Your task to perform on an android device: Clear the cart on newegg. Add energizer triple a to the cart on newegg, then select checkout. Image 0: 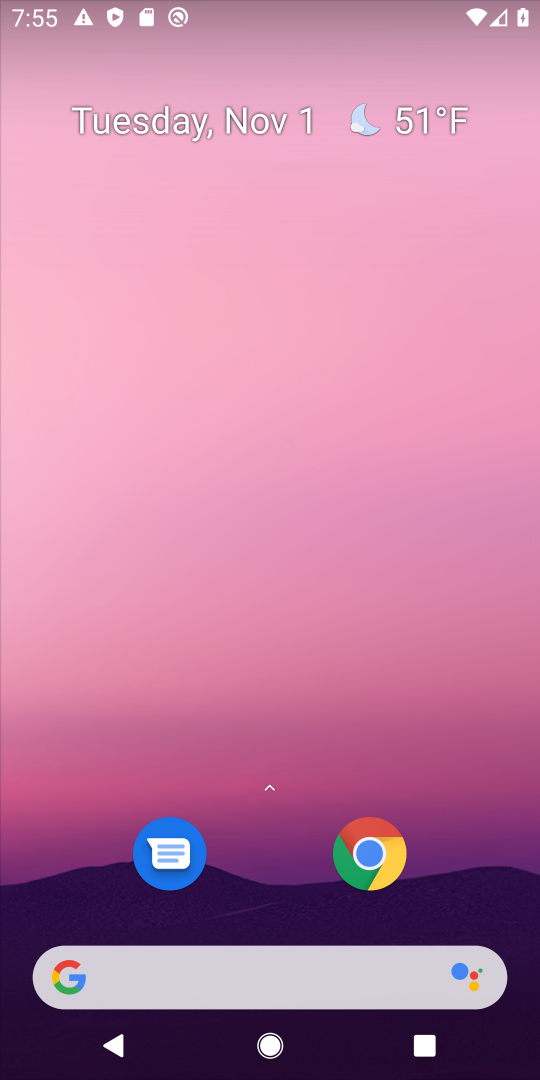
Step 0: click (298, 964)
Your task to perform on an android device: Clear the cart on newegg. Add energizer triple a to the cart on newegg, then select checkout. Image 1: 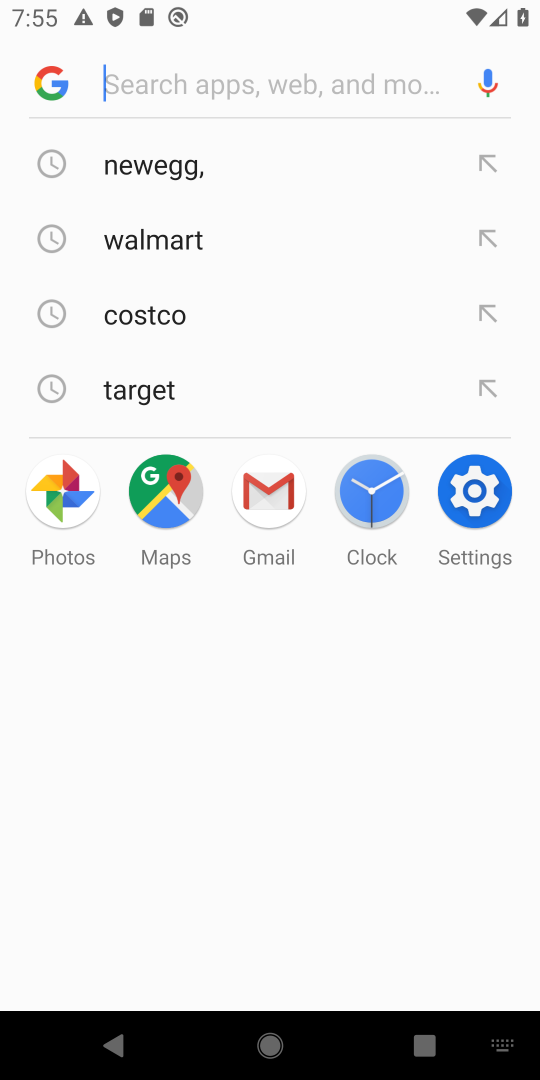
Step 1: click (203, 133)
Your task to perform on an android device: Clear the cart on newegg. Add energizer triple a to the cart on newegg, then select checkout. Image 2: 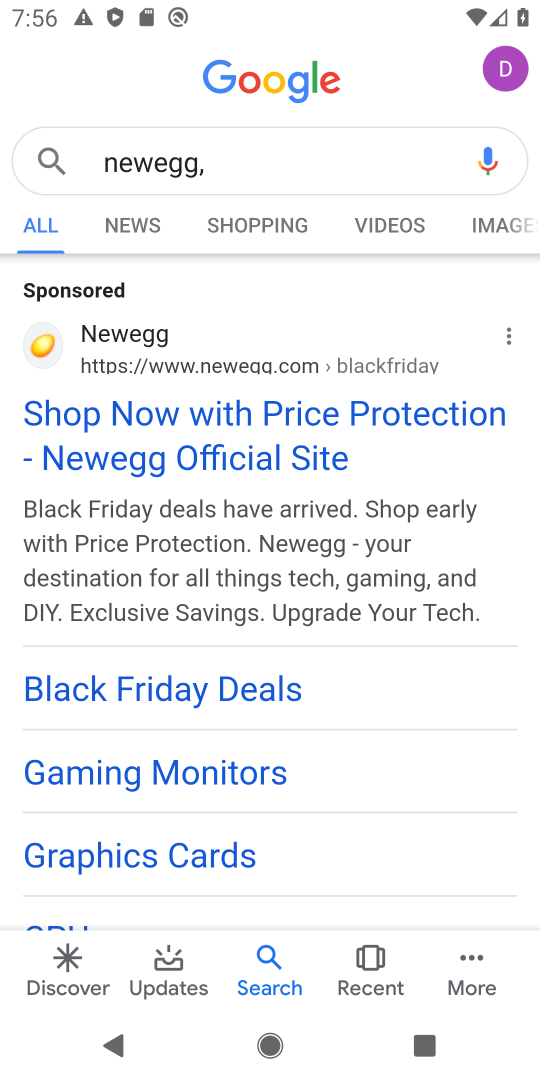
Step 2: click (245, 697)
Your task to perform on an android device: Clear the cart on newegg. Add energizer triple a to the cart on newegg, then select checkout. Image 3: 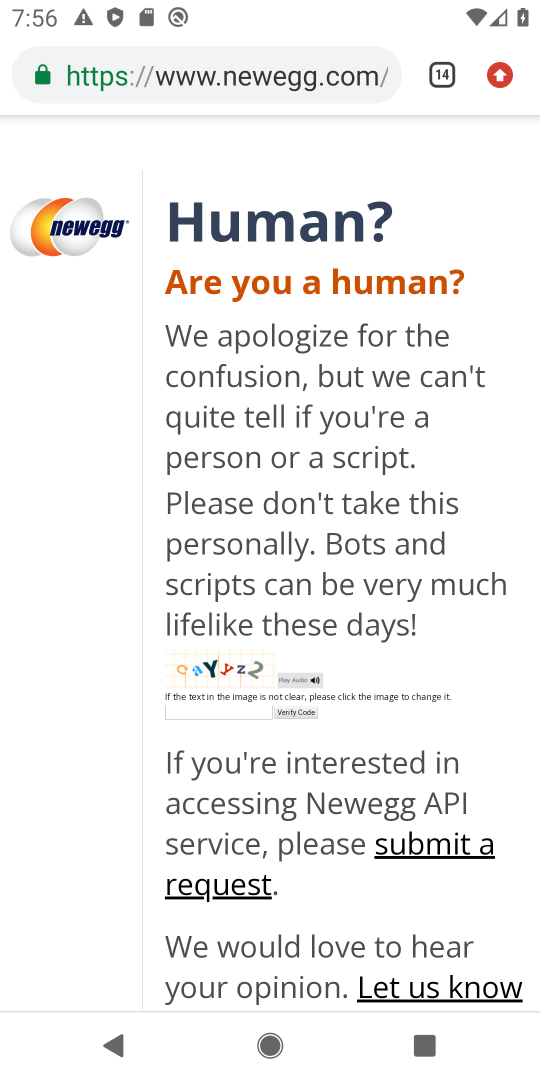
Step 3: click (215, 723)
Your task to perform on an android device: Clear the cart on newegg. Add energizer triple a to the cart on newegg, then select checkout. Image 4: 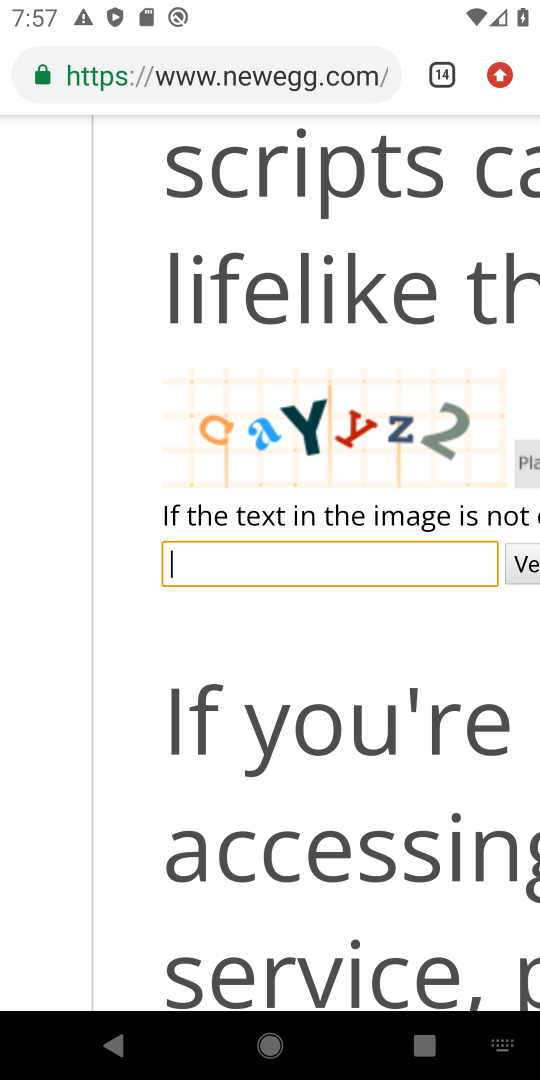
Step 4: type "caYYz2"
Your task to perform on an android device: Clear the cart on newegg. Add energizer triple a to the cart on newegg, then select checkout. Image 5: 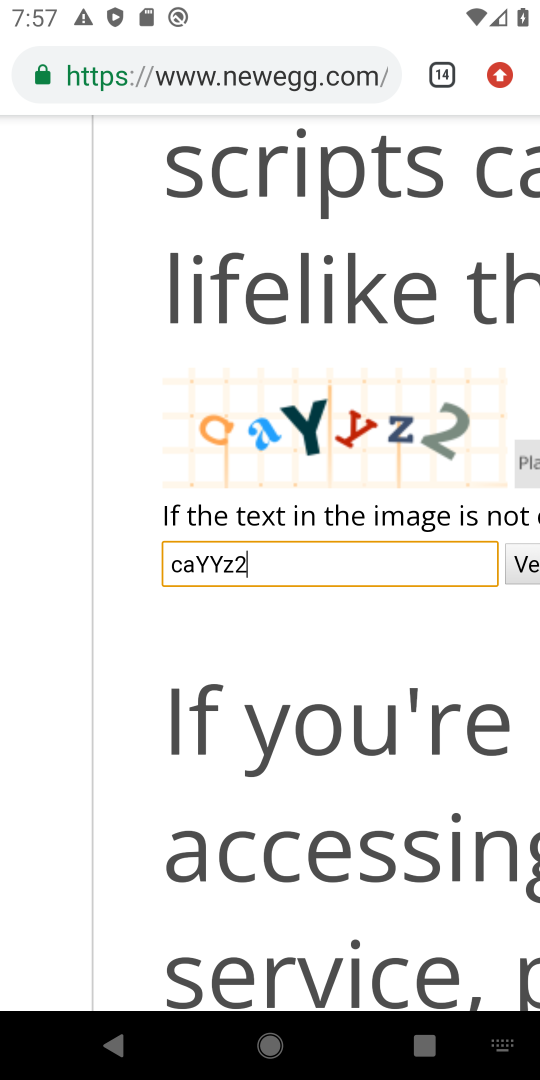
Step 5: click (527, 573)
Your task to perform on an android device: Clear the cart on newegg. Add energizer triple a to the cart on newegg, then select checkout. Image 6: 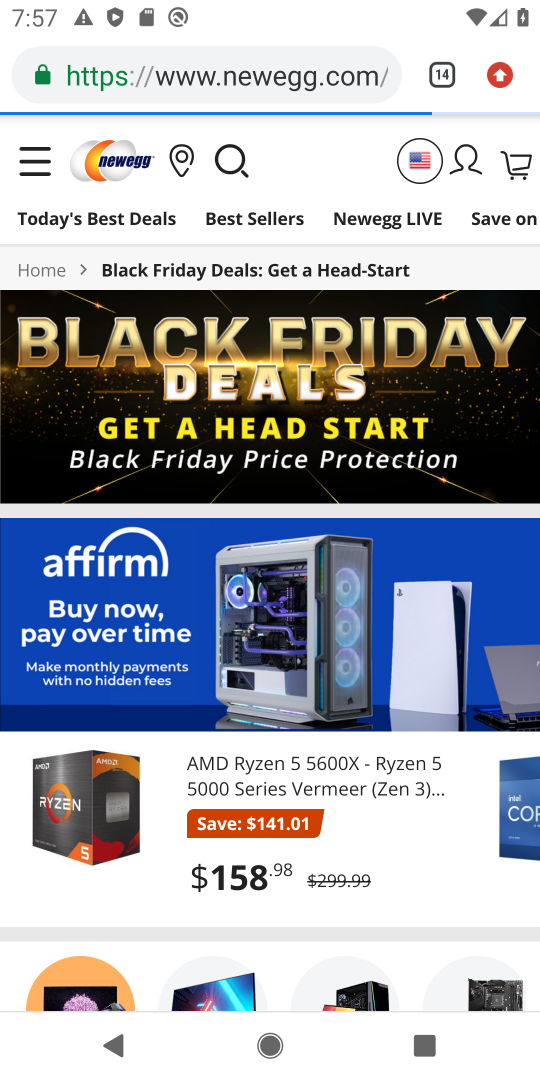
Step 6: click (224, 172)
Your task to perform on an android device: Clear the cart on newegg. Add energizer triple a to the cart on newegg, then select checkout. Image 7: 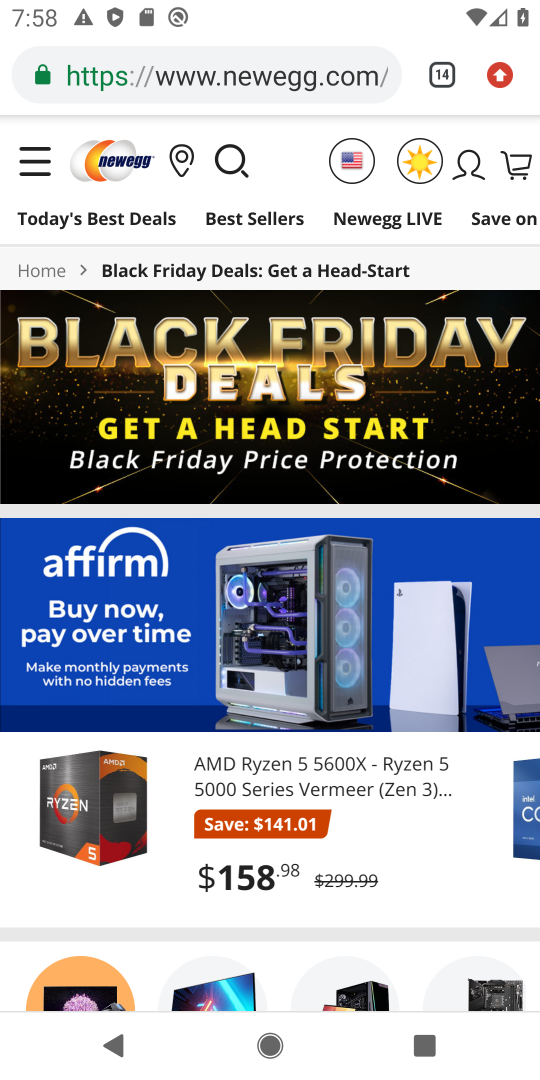
Step 7: click (229, 129)
Your task to perform on an android device: Clear the cart on newegg. Add energizer triple a to the cart on newegg, then select checkout. Image 8: 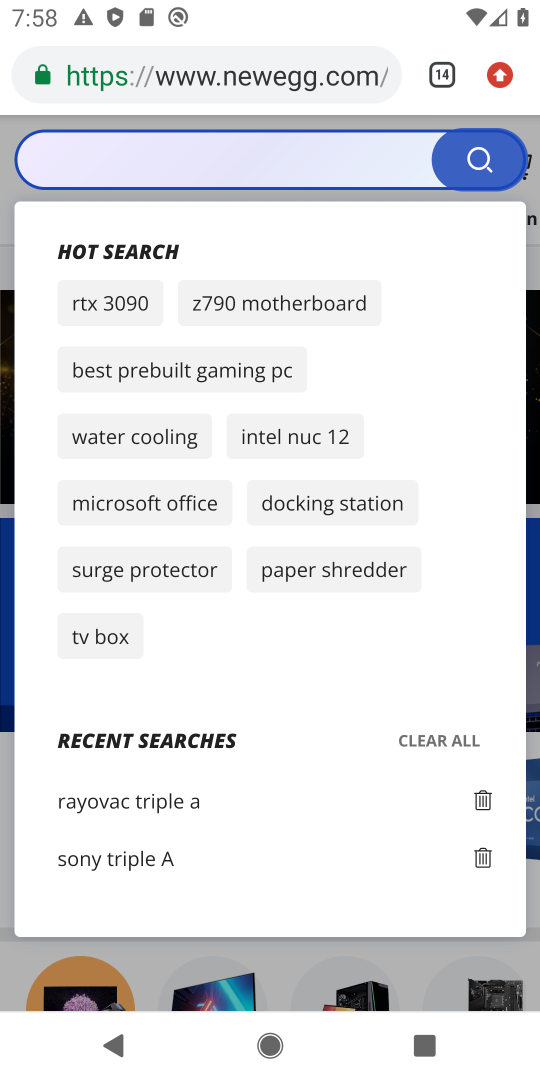
Step 8: type "triple a"
Your task to perform on an android device: Clear the cart on newegg. Add energizer triple a to the cart on newegg, then select checkout. Image 9: 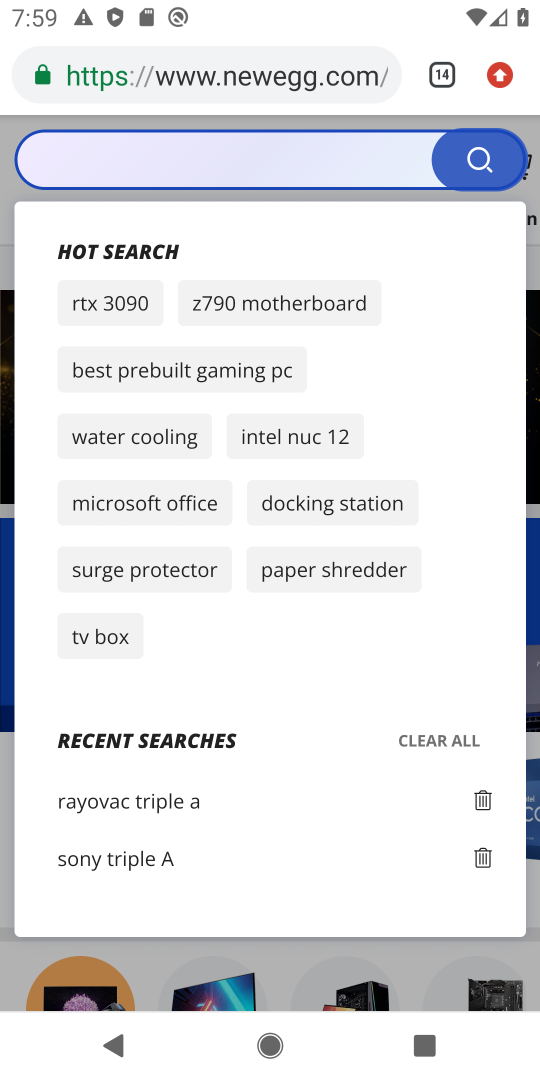
Step 9: click (314, 176)
Your task to perform on an android device: Clear the cart on newegg. Add energizer triple a to the cart on newegg, then select checkout. Image 10: 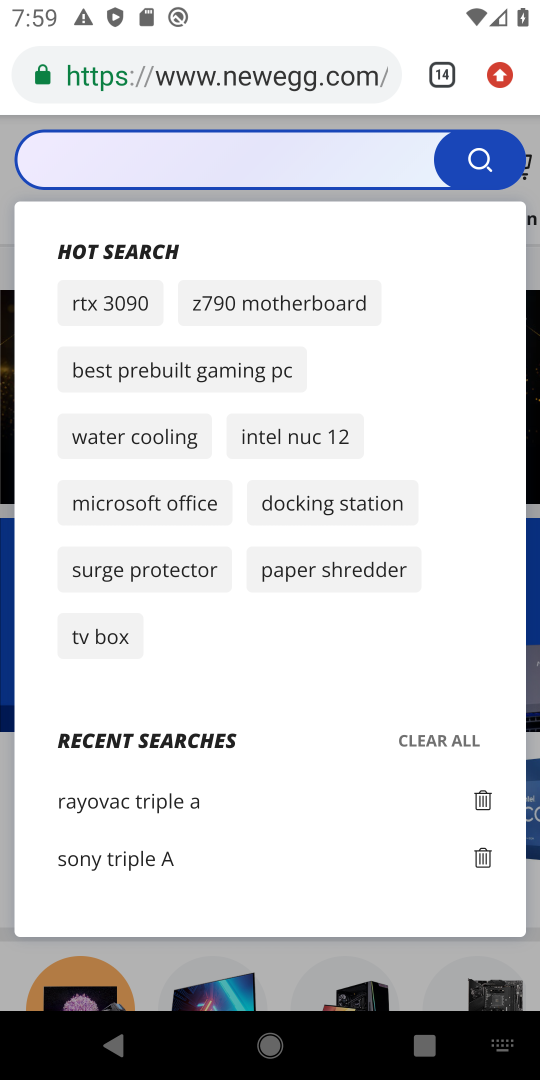
Step 10: type "triple a"
Your task to perform on an android device: Clear the cart on newegg. Add energizer triple a to the cart on newegg, then select checkout. Image 11: 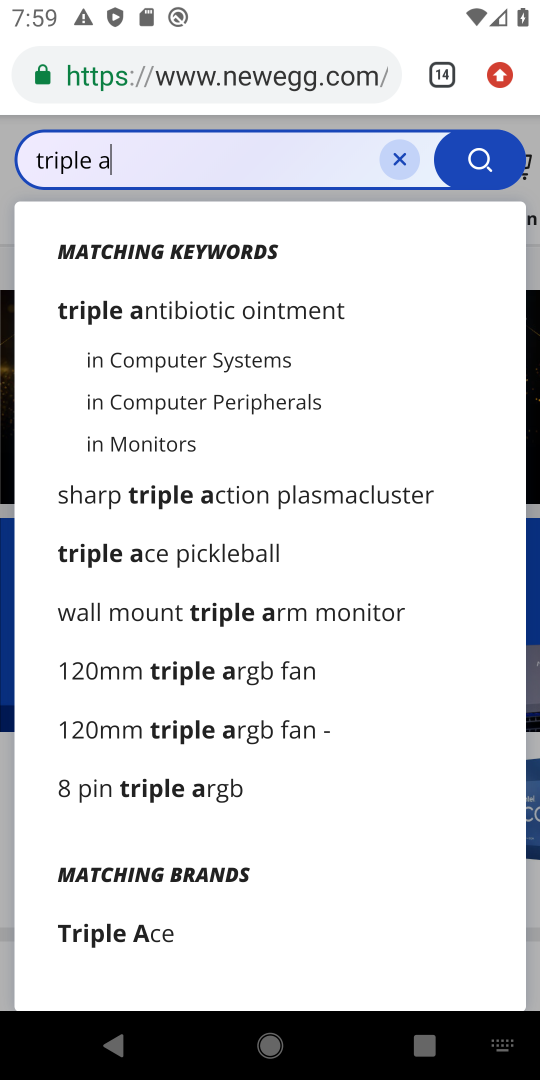
Step 11: click (500, 155)
Your task to perform on an android device: Clear the cart on newegg. Add energizer triple a to the cart on newegg, then select checkout. Image 12: 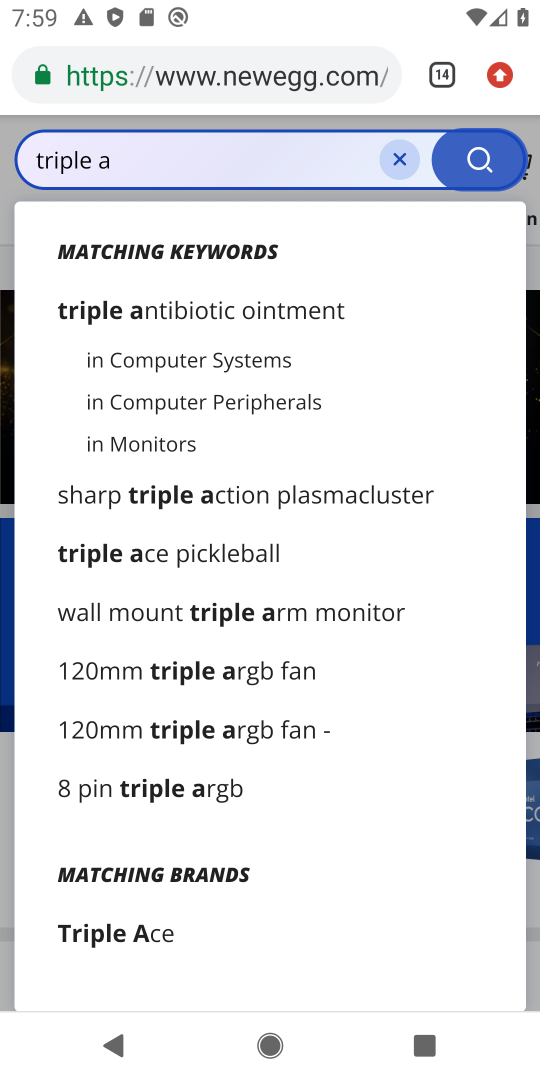
Step 12: click (460, 170)
Your task to perform on an android device: Clear the cart on newegg. Add energizer triple a to the cart on newegg, then select checkout. Image 13: 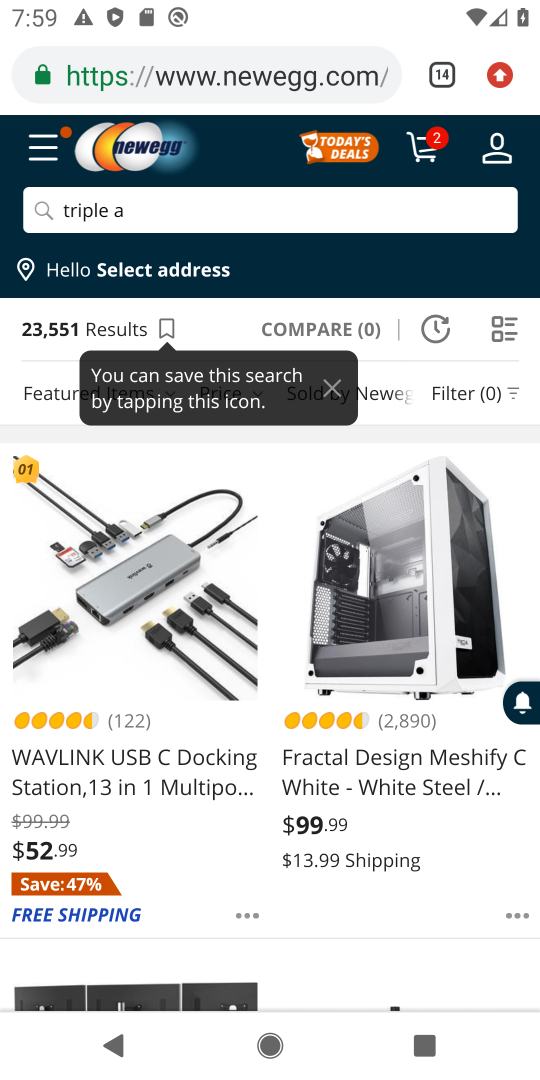
Step 13: click (101, 667)
Your task to perform on an android device: Clear the cart on newegg. Add energizer triple a to the cart on newegg, then select checkout. Image 14: 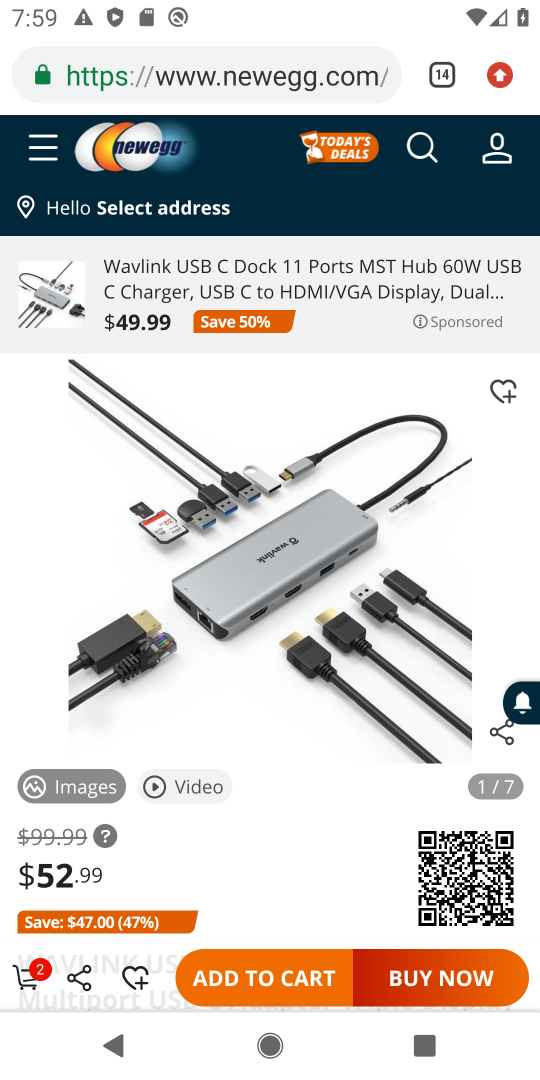
Step 14: click (259, 960)
Your task to perform on an android device: Clear the cart on newegg. Add energizer triple a to the cart on newegg, then select checkout. Image 15: 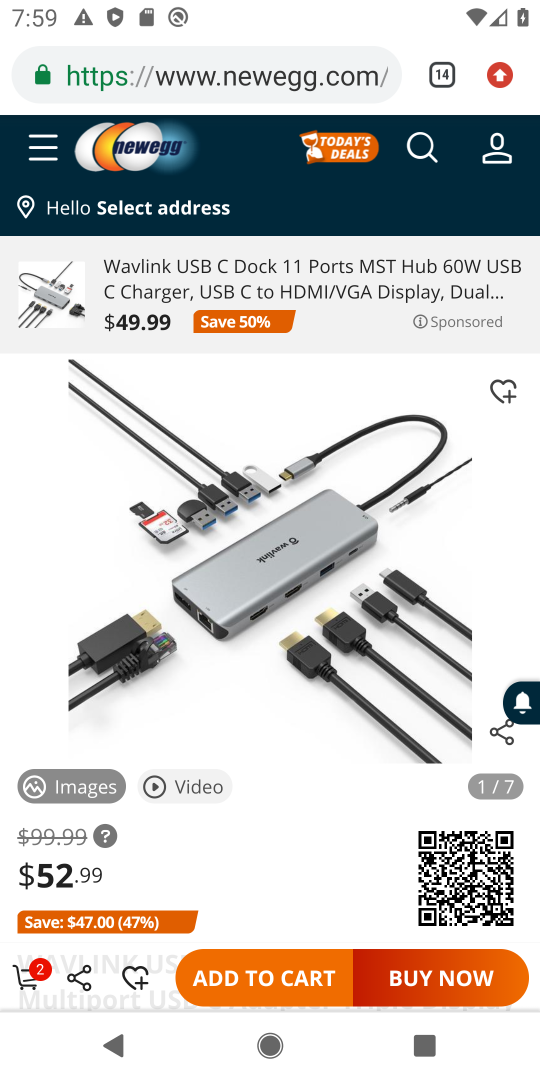
Step 15: task complete